Your task to perform on an android device: set the stopwatch Image 0: 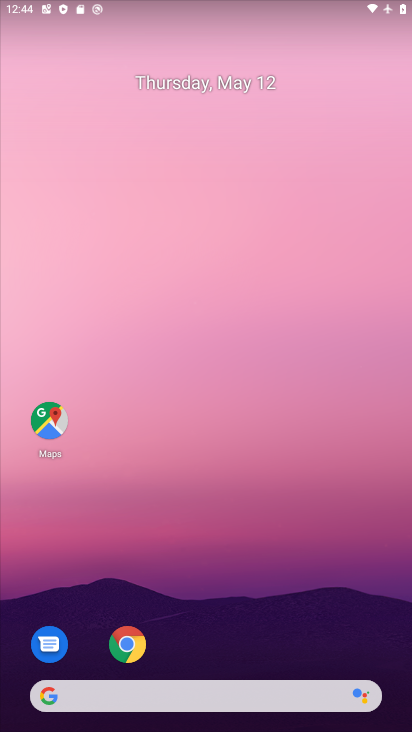
Step 0: drag from (261, 627) to (216, 71)
Your task to perform on an android device: set the stopwatch Image 1: 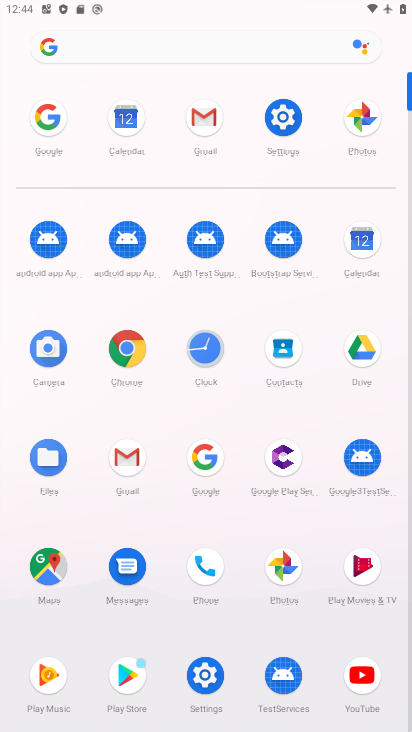
Step 1: click (202, 341)
Your task to perform on an android device: set the stopwatch Image 2: 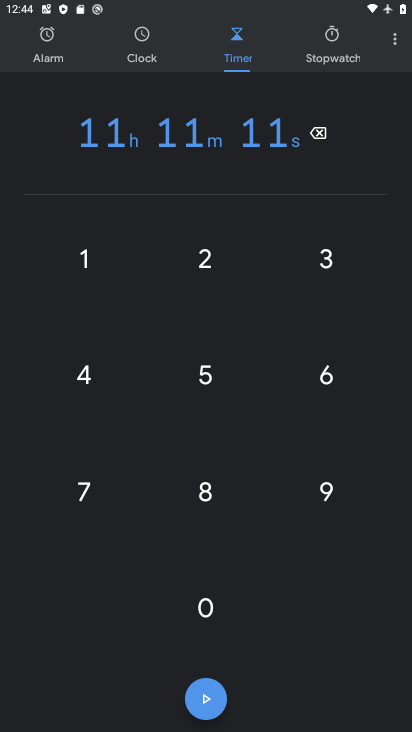
Step 2: click (344, 47)
Your task to perform on an android device: set the stopwatch Image 3: 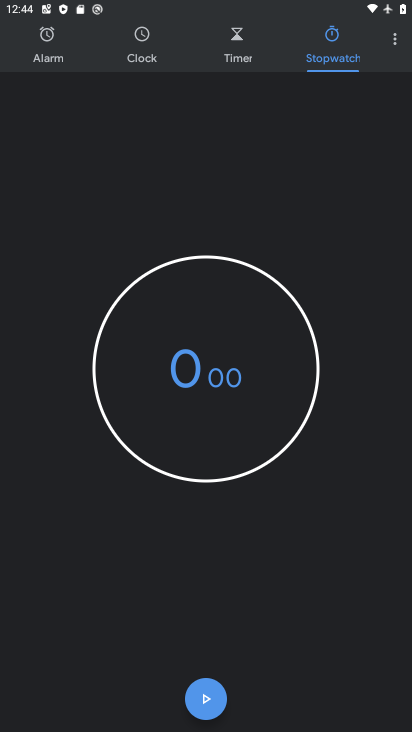
Step 3: click (207, 699)
Your task to perform on an android device: set the stopwatch Image 4: 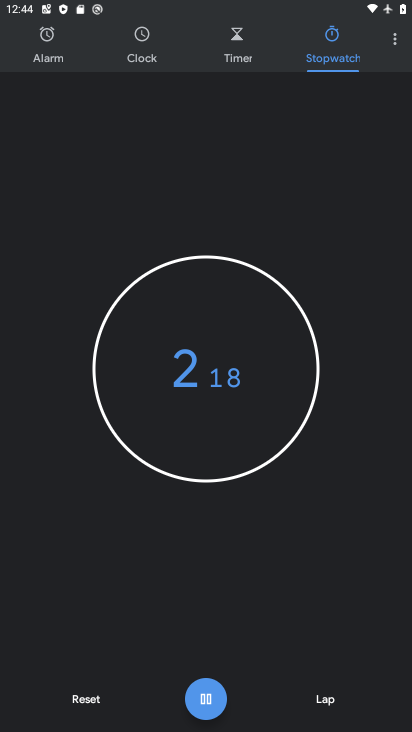
Step 4: task complete